Your task to perform on an android device: When is my next meeting? Image 0: 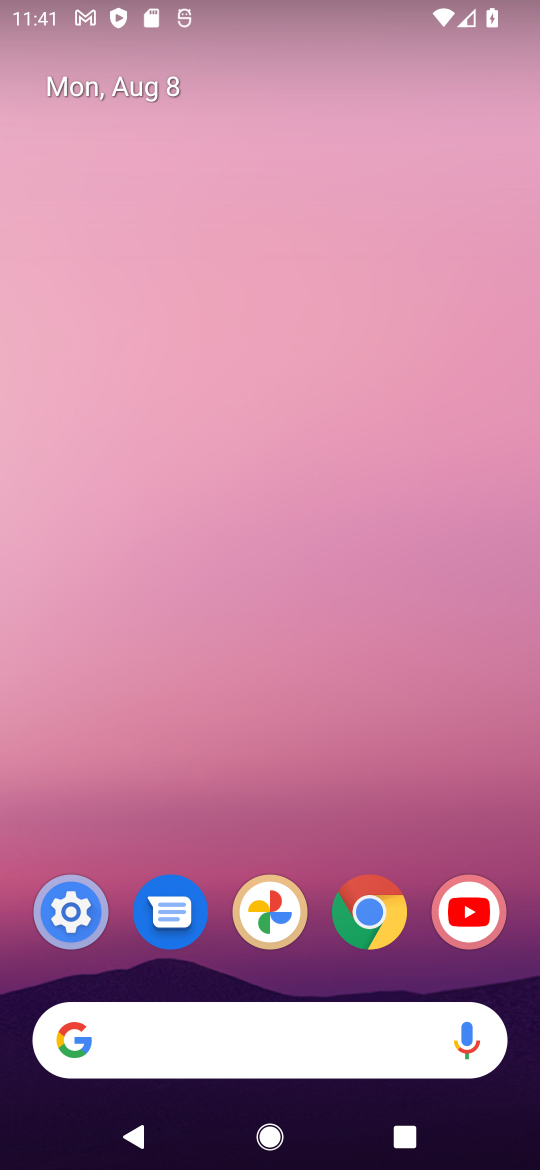
Step 0: drag from (190, 959) to (289, 40)
Your task to perform on an android device: When is my next meeting? Image 1: 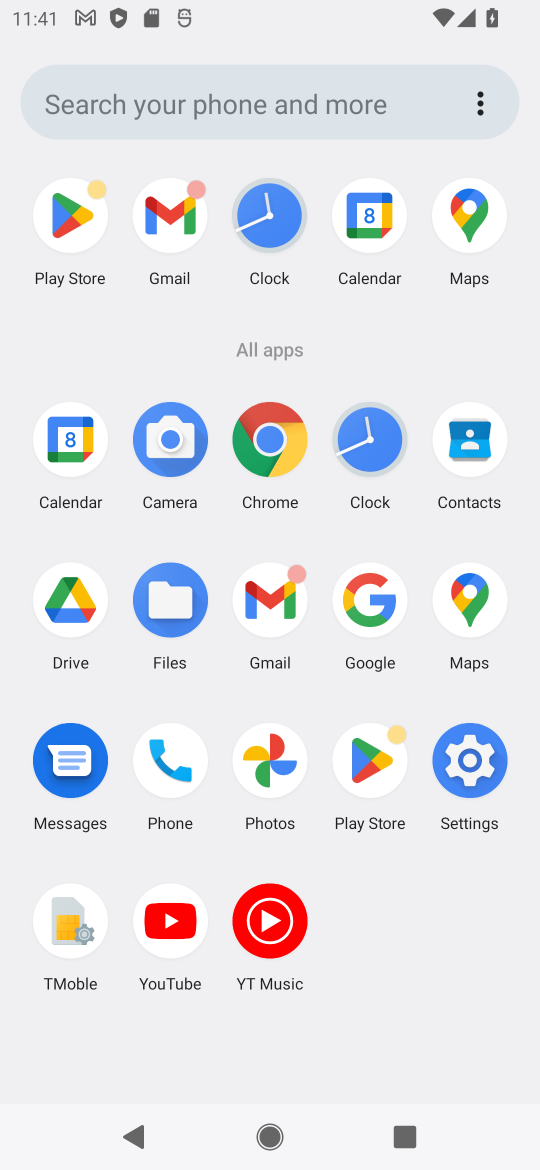
Step 1: click (65, 444)
Your task to perform on an android device: When is my next meeting? Image 2: 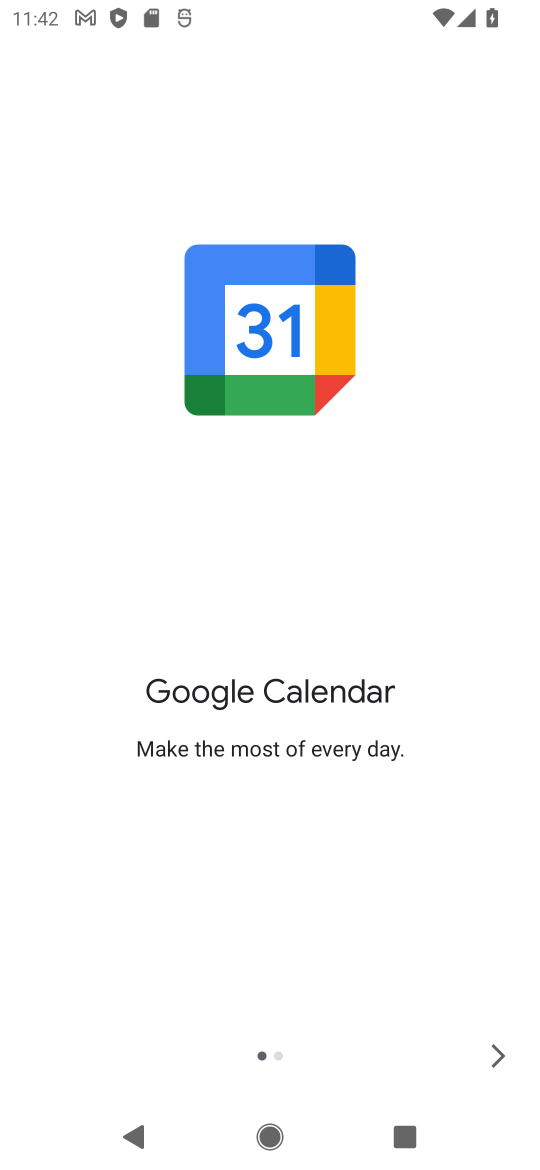
Step 2: click (500, 1054)
Your task to perform on an android device: When is my next meeting? Image 3: 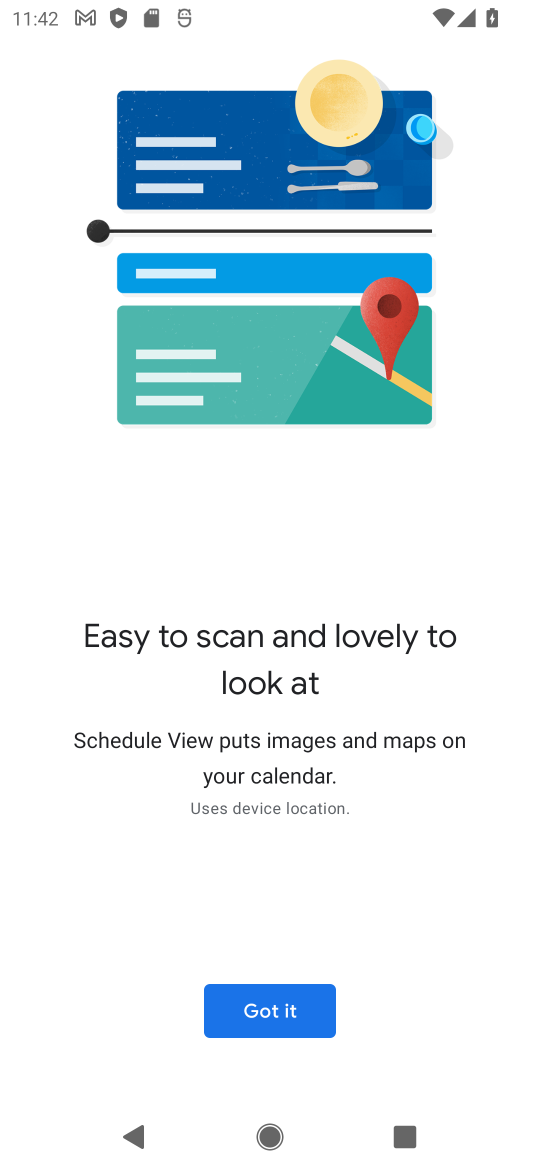
Step 3: click (259, 1000)
Your task to perform on an android device: When is my next meeting? Image 4: 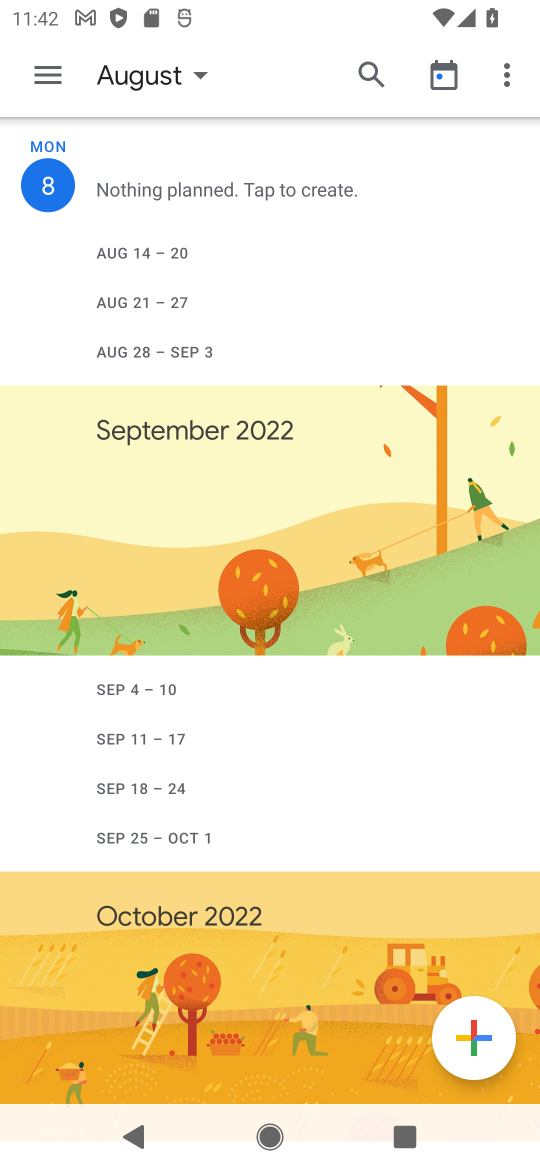
Step 4: task complete